Your task to perform on an android device: set the timer Image 0: 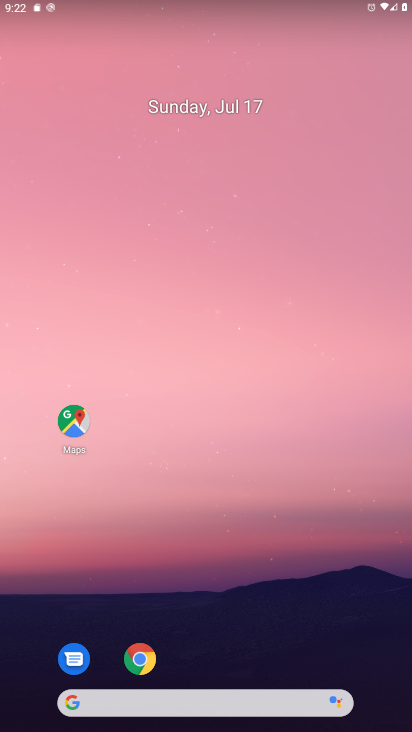
Step 0: drag from (212, 491) to (249, 50)
Your task to perform on an android device: set the timer Image 1: 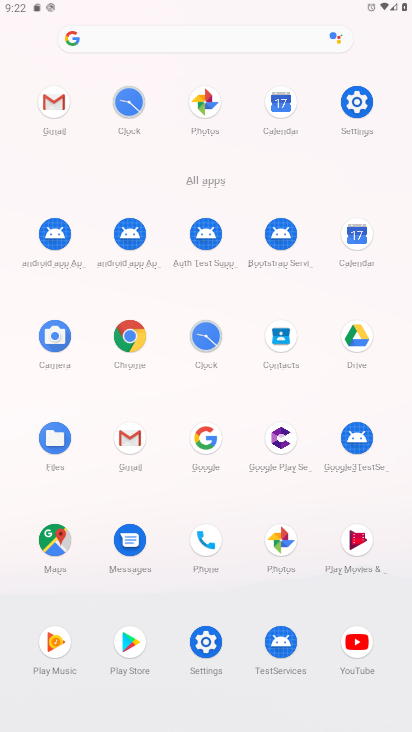
Step 1: click (213, 334)
Your task to perform on an android device: set the timer Image 2: 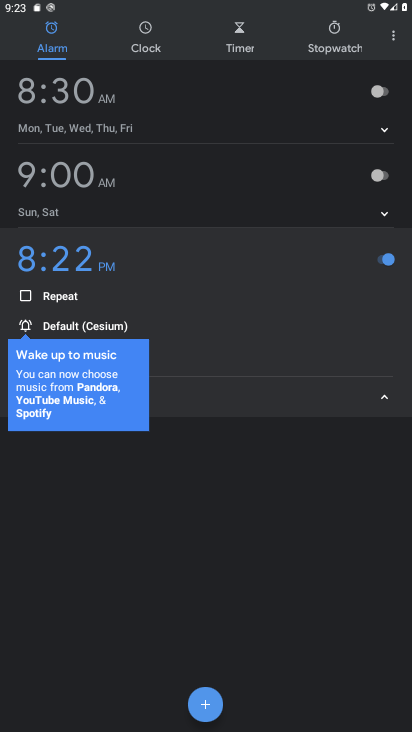
Step 2: click (231, 39)
Your task to perform on an android device: set the timer Image 3: 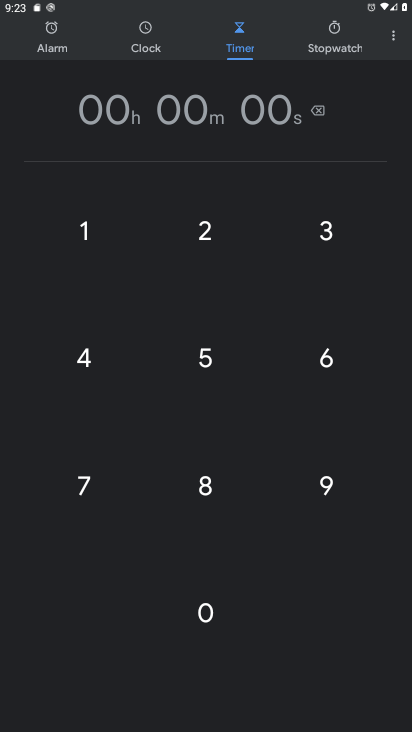
Step 3: click (199, 261)
Your task to perform on an android device: set the timer Image 4: 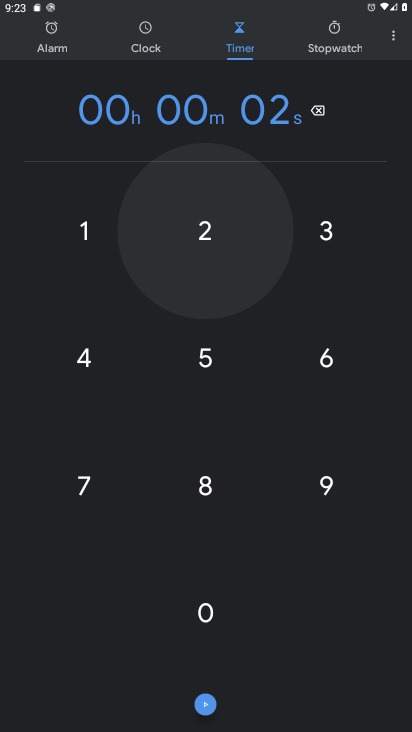
Step 4: click (211, 341)
Your task to perform on an android device: set the timer Image 5: 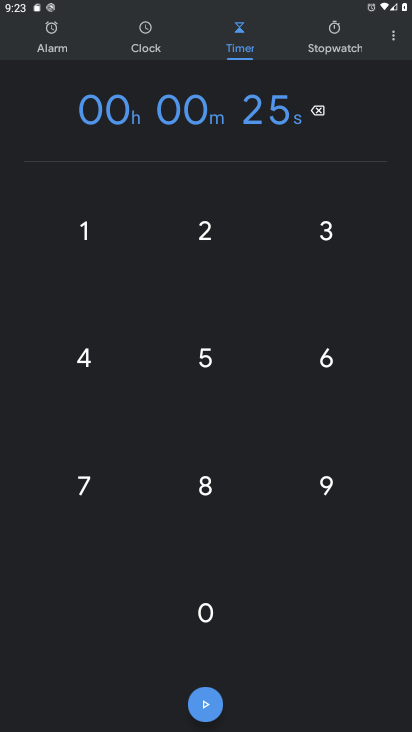
Step 5: click (204, 470)
Your task to perform on an android device: set the timer Image 6: 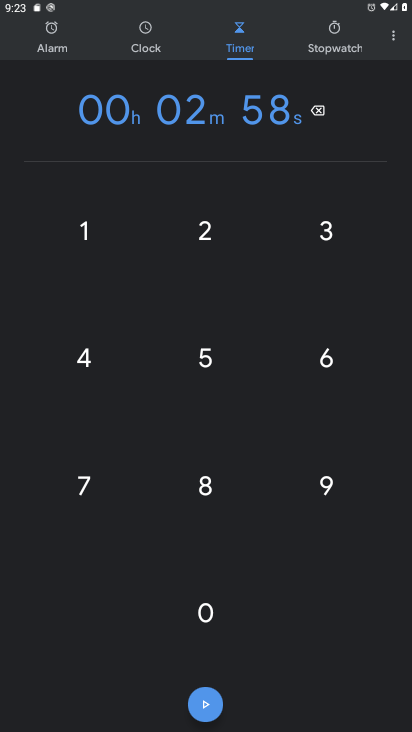
Step 6: task complete